Your task to perform on an android device: Do I have any events this weekend? Image 0: 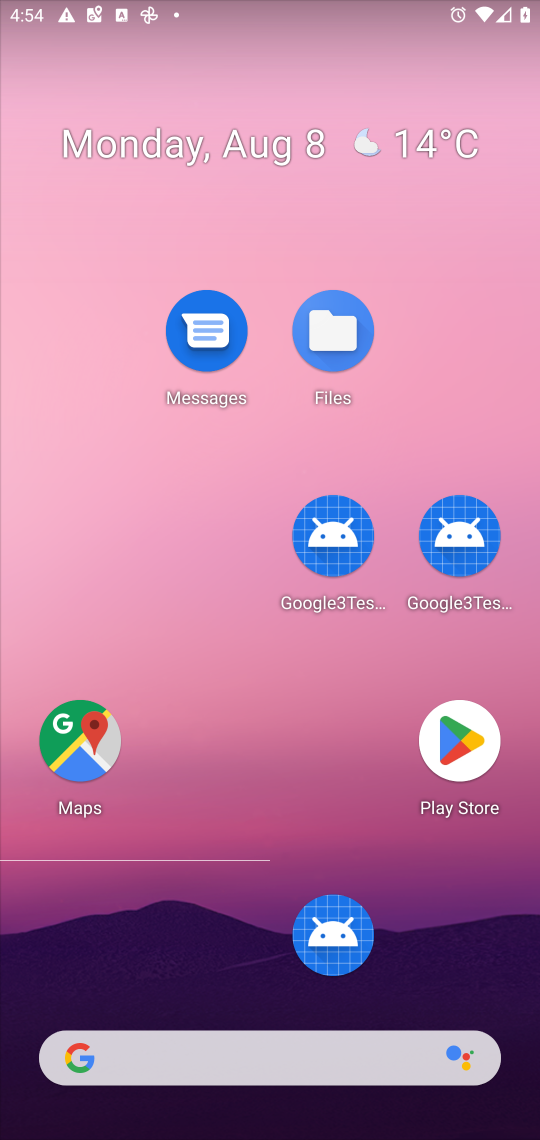
Step 0: drag from (209, 1063) to (367, 70)
Your task to perform on an android device: Do I have any events this weekend? Image 1: 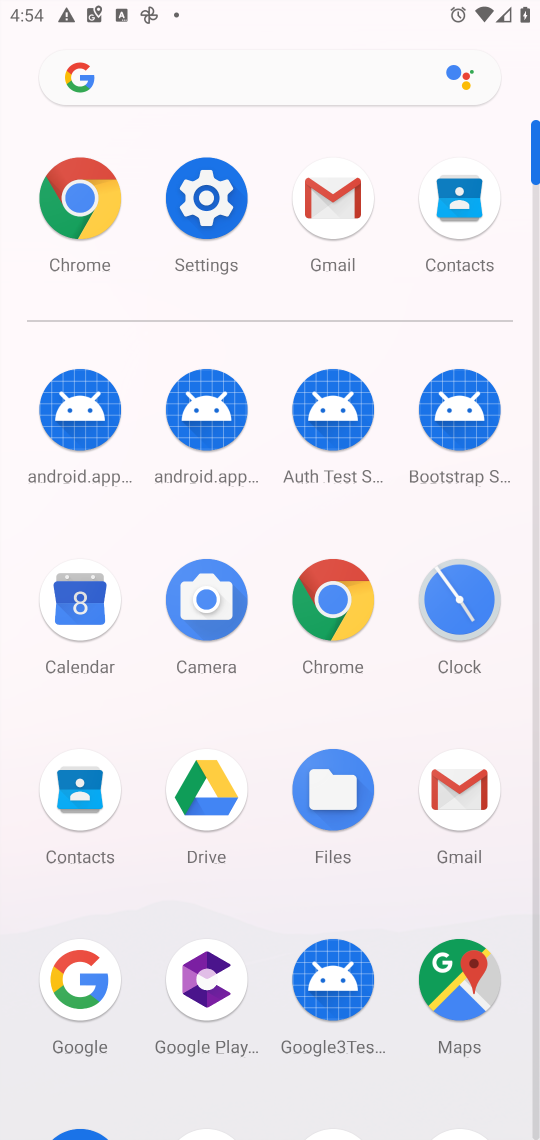
Step 1: click (95, 592)
Your task to perform on an android device: Do I have any events this weekend? Image 2: 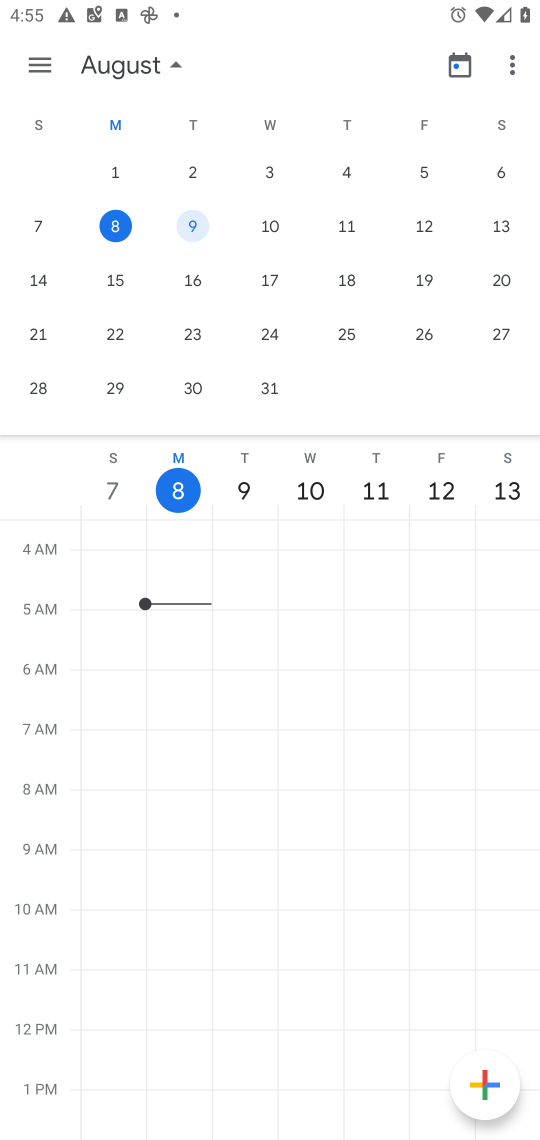
Step 2: click (504, 227)
Your task to perform on an android device: Do I have any events this weekend? Image 3: 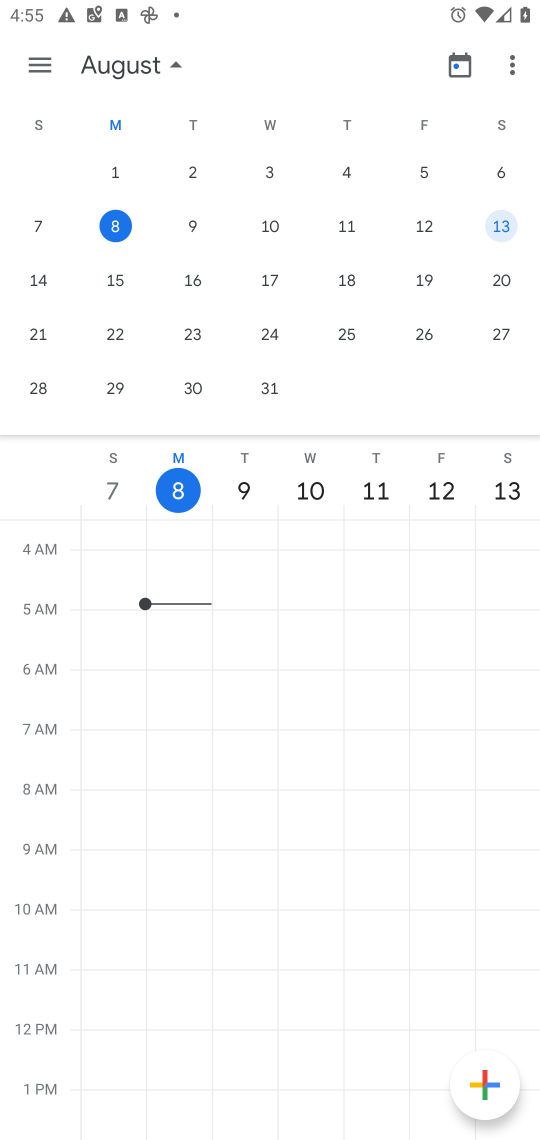
Step 3: task complete